Your task to perform on an android device: Open Google Maps Image 0: 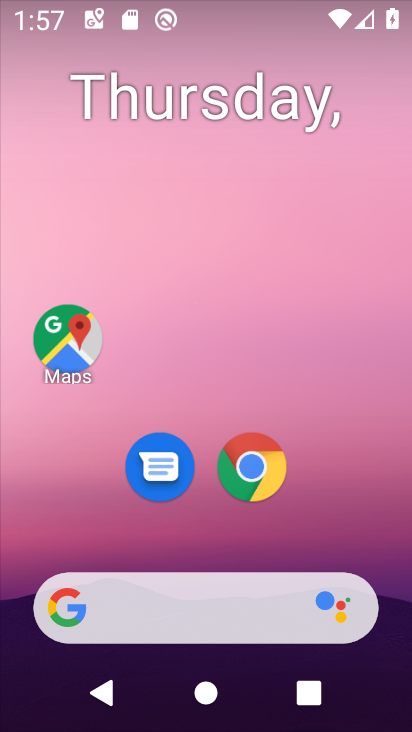
Step 0: drag from (194, 548) to (148, 19)
Your task to perform on an android device: Open Google Maps Image 1: 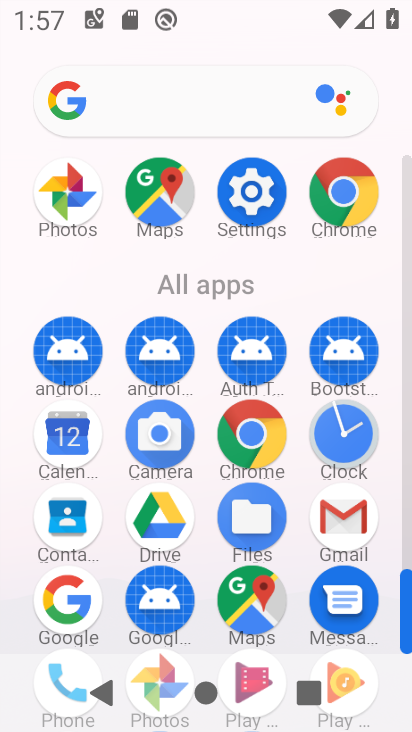
Step 1: click (259, 580)
Your task to perform on an android device: Open Google Maps Image 2: 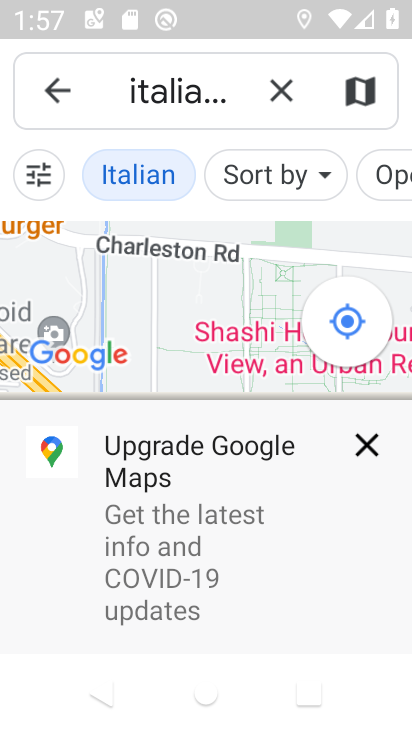
Step 2: task complete